Your task to perform on an android device: Open CNN.com Image 0: 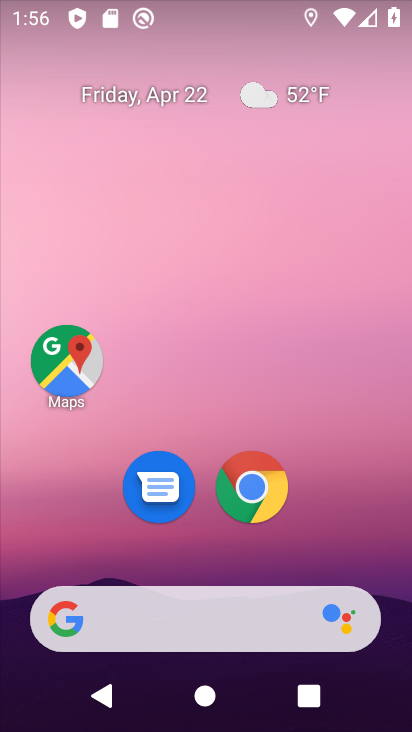
Step 0: click (324, 254)
Your task to perform on an android device: Open CNN.com Image 1: 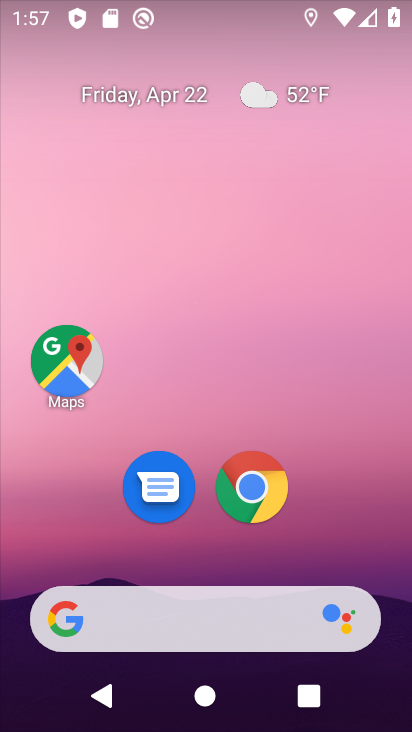
Step 1: click (252, 468)
Your task to perform on an android device: Open CNN.com Image 2: 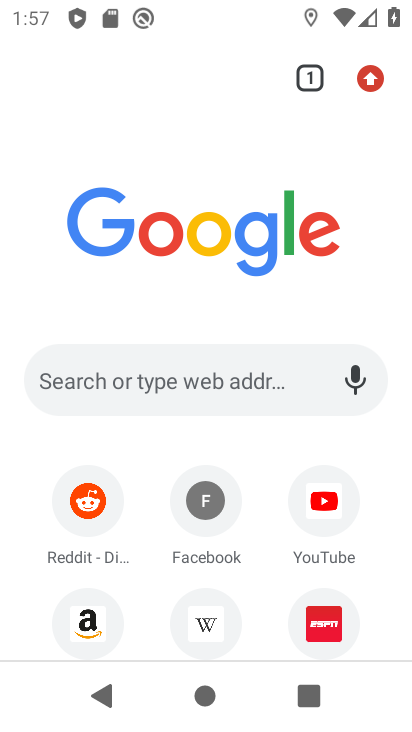
Step 2: click (177, 378)
Your task to perform on an android device: Open CNN.com Image 3: 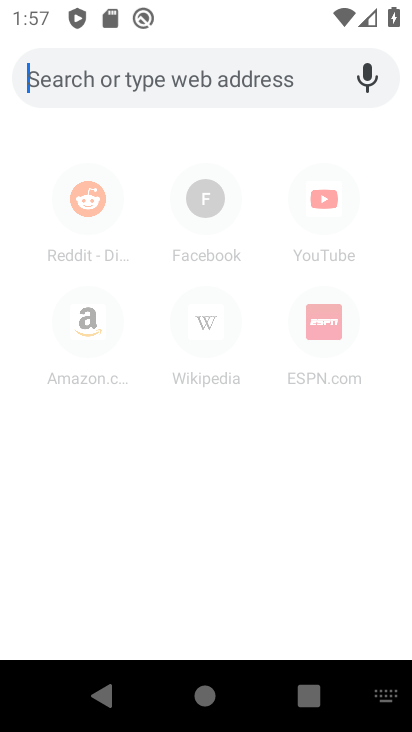
Step 3: type "CNN.com"
Your task to perform on an android device: Open CNN.com Image 4: 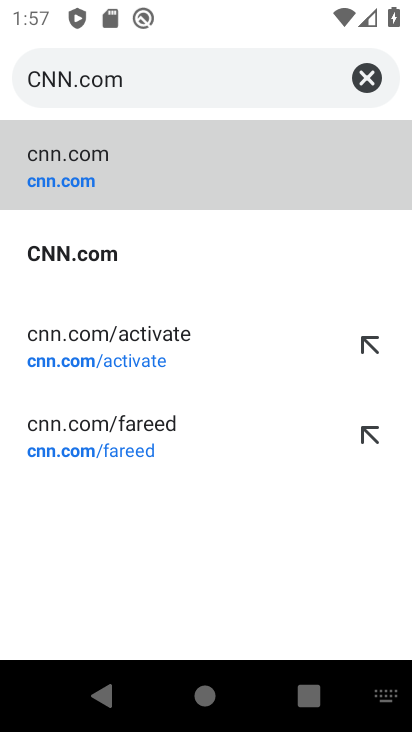
Step 4: click (69, 253)
Your task to perform on an android device: Open CNN.com Image 5: 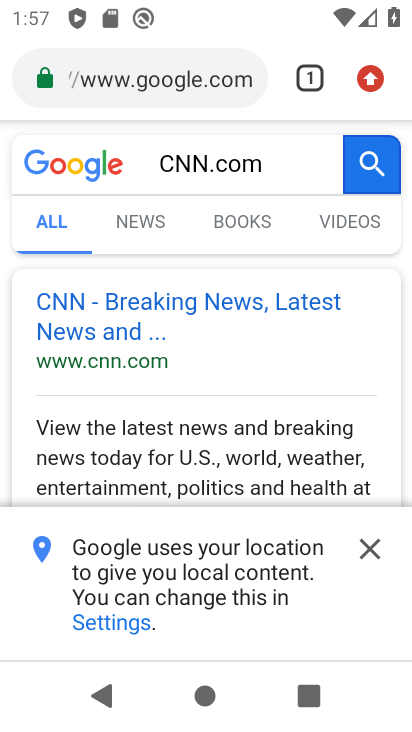
Step 5: click (375, 540)
Your task to perform on an android device: Open CNN.com Image 6: 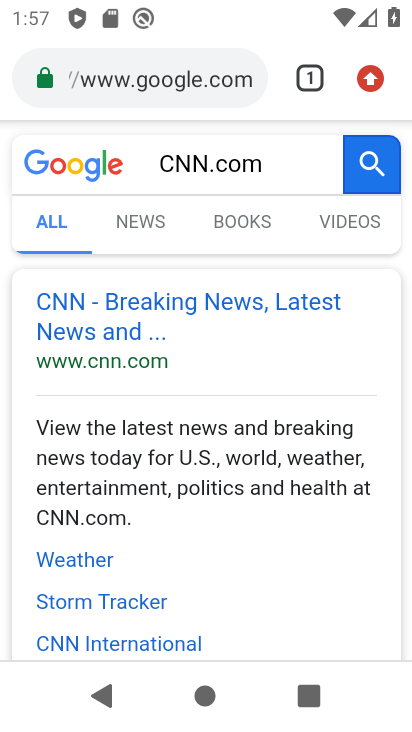
Step 6: task complete